Your task to perform on an android device: open app "Google Home" (install if not already installed) Image 0: 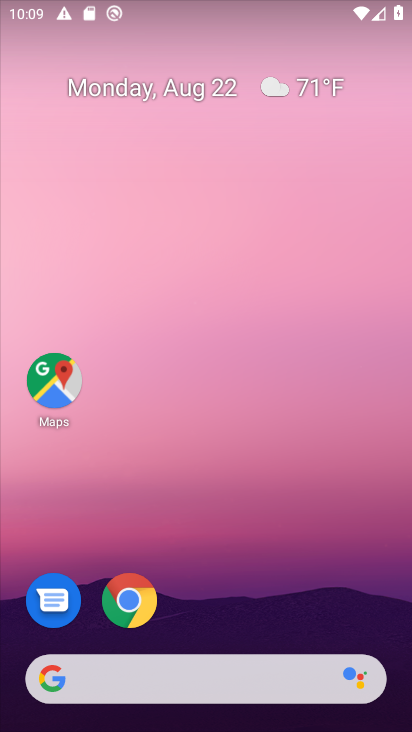
Step 0: drag from (221, 561) to (221, 126)
Your task to perform on an android device: open app "Google Home" (install if not already installed) Image 1: 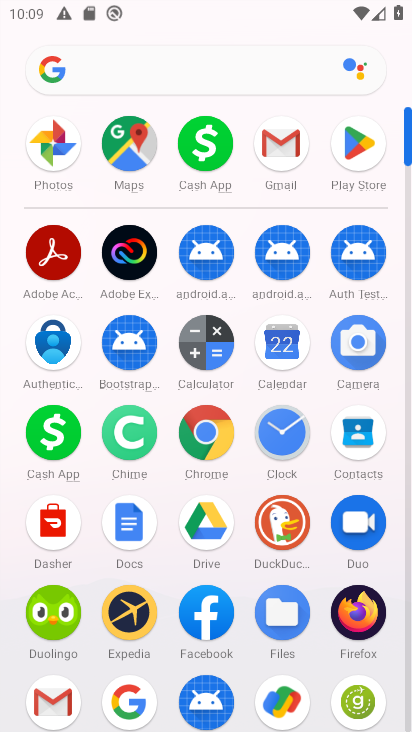
Step 1: click (354, 133)
Your task to perform on an android device: open app "Google Home" (install if not already installed) Image 2: 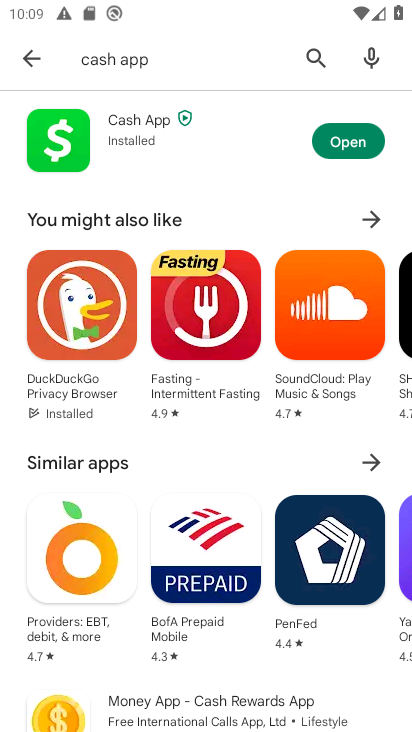
Step 2: click (318, 56)
Your task to perform on an android device: open app "Google Home" (install if not already installed) Image 3: 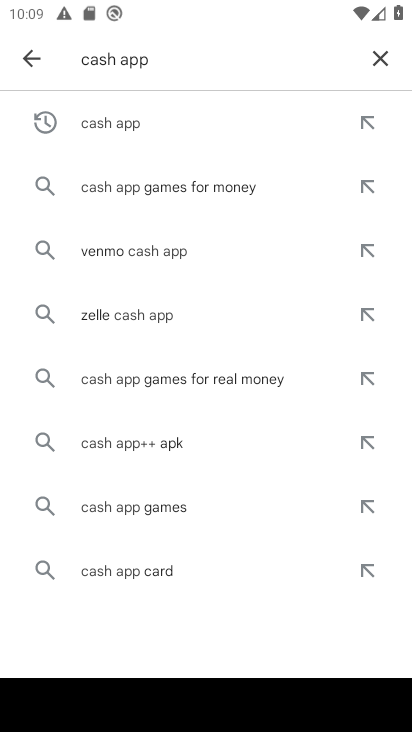
Step 3: click (375, 55)
Your task to perform on an android device: open app "Google Home" (install if not already installed) Image 4: 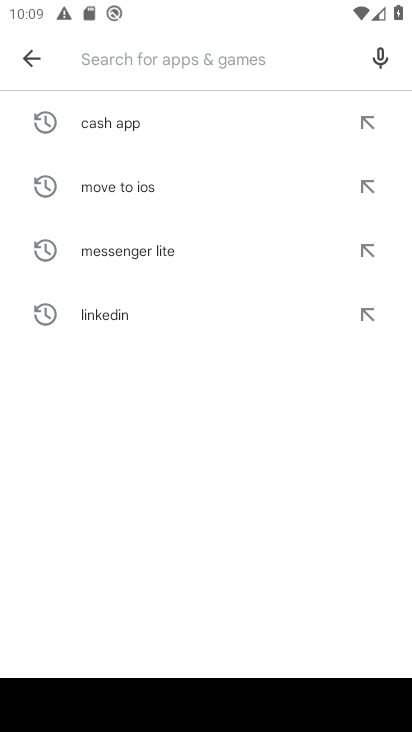
Step 4: type "Google Home"
Your task to perform on an android device: open app "Google Home" (install if not already installed) Image 5: 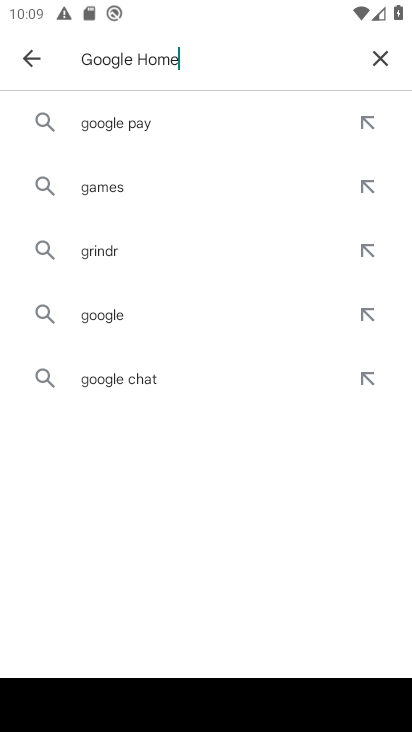
Step 5: type ""
Your task to perform on an android device: open app "Google Home" (install if not already installed) Image 6: 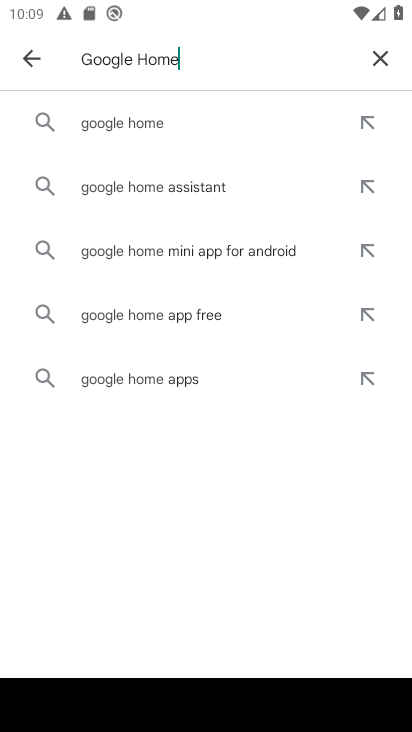
Step 6: click (205, 122)
Your task to perform on an android device: open app "Google Home" (install if not already installed) Image 7: 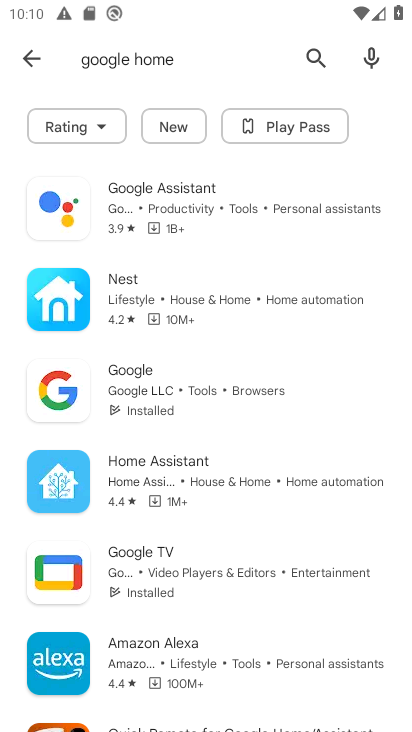
Step 7: task complete